Your task to perform on an android device: check out phone information Image 0: 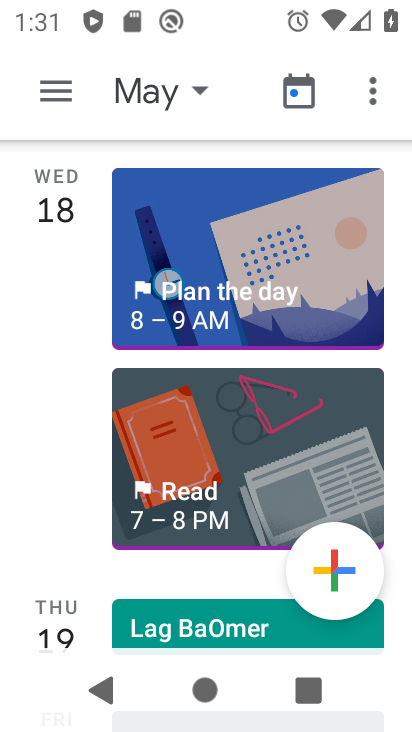
Step 0: press home button
Your task to perform on an android device: check out phone information Image 1: 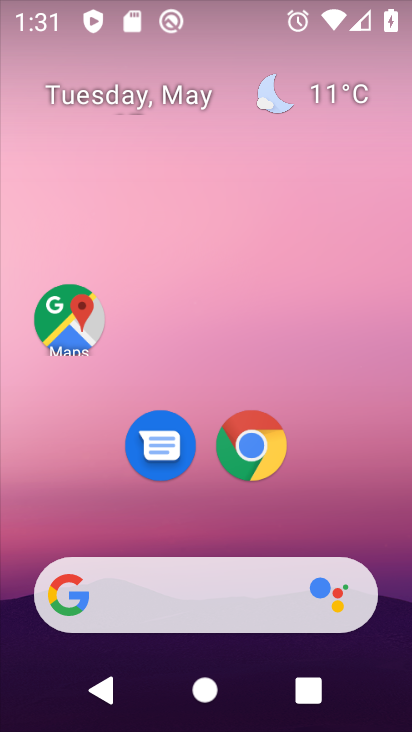
Step 1: drag from (351, 525) to (308, 105)
Your task to perform on an android device: check out phone information Image 2: 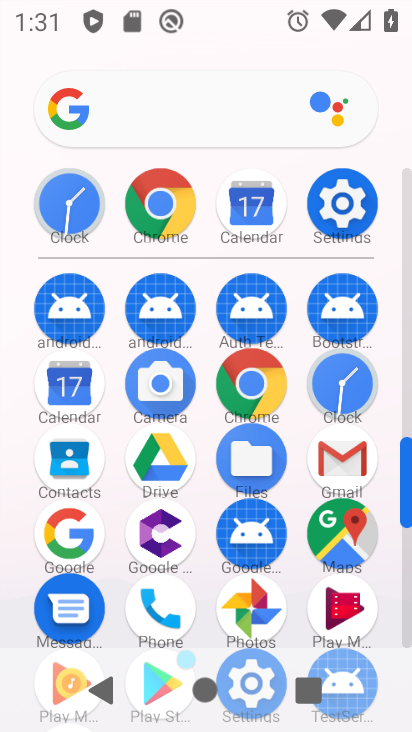
Step 2: click (362, 204)
Your task to perform on an android device: check out phone information Image 3: 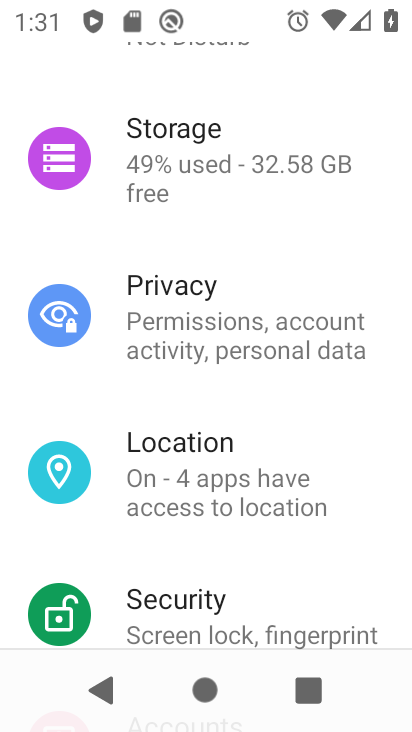
Step 3: drag from (240, 541) to (188, 229)
Your task to perform on an android device: check out phone information Image 4: 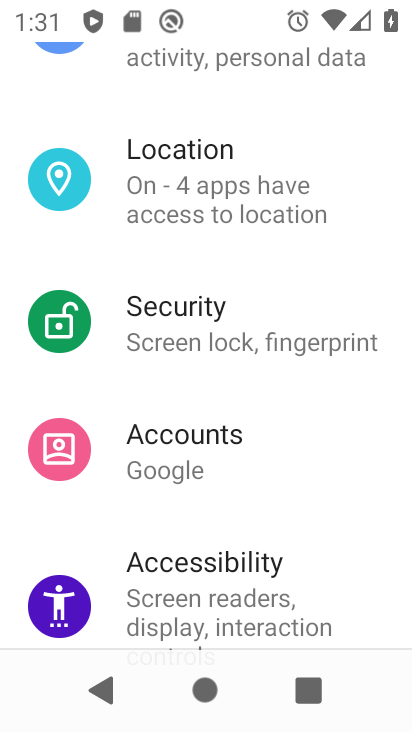
Step 4: drag from (177, 523) to (163, 74)
Your task to perform on an android device: check out phone information Image 5: 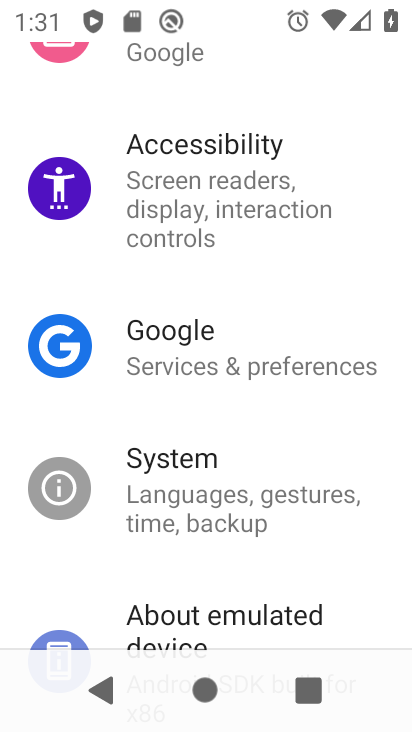
Step 5: drag from (214, 557) to (236, 224)
Your task to perform on an android device: check out phone information Image 6: 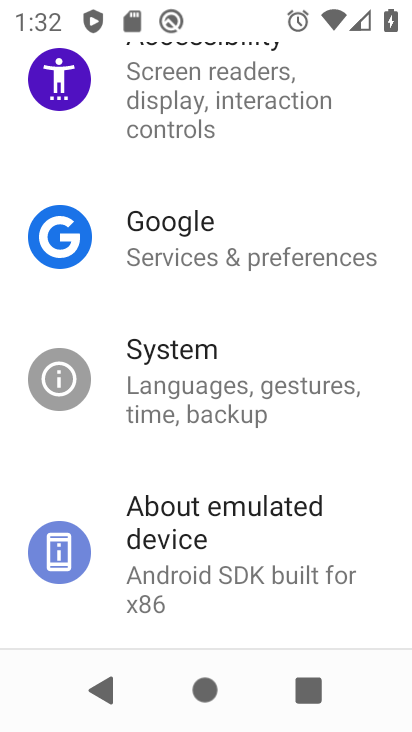
Step 6: drag from (230, 616) to (221, 261)
Your task to perform on an android device: check out phone information Image 7: 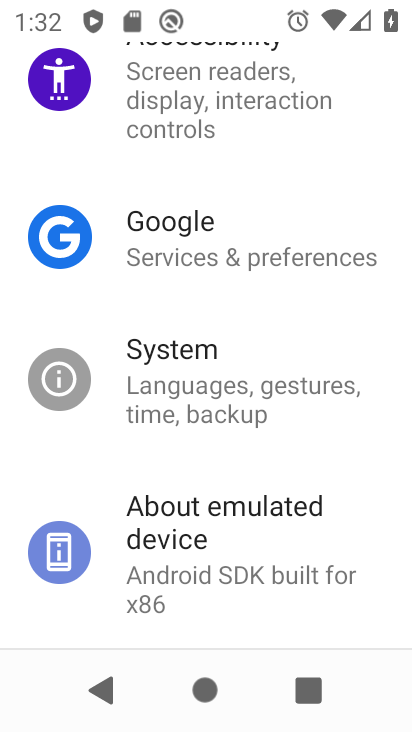
Step 7: click (147, 572)
Your task to perform on an android device: check out phone information Image 8: 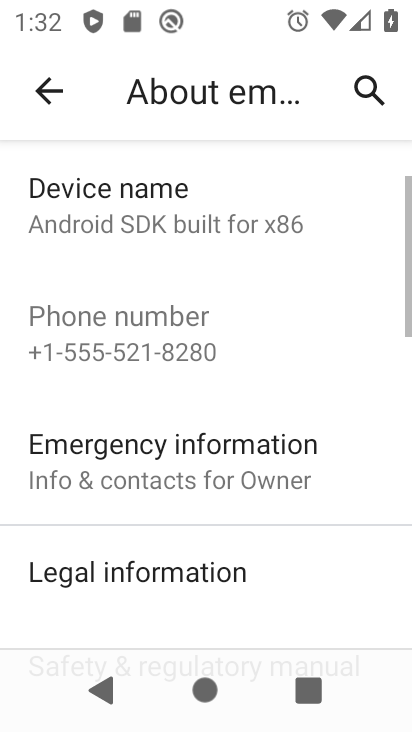
Step 8: task complete